Your task to perform on an android device: Google the capital of Colombia Image 0: 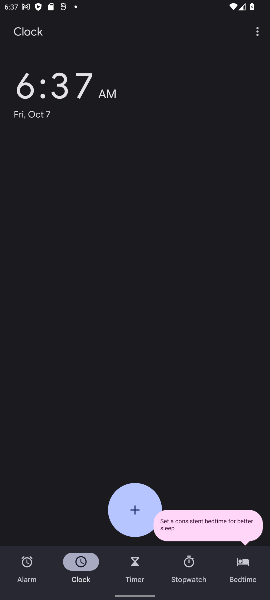
Step 0: press home button
Your task to perform on an android device: Google the capital of Colombia Image 1: 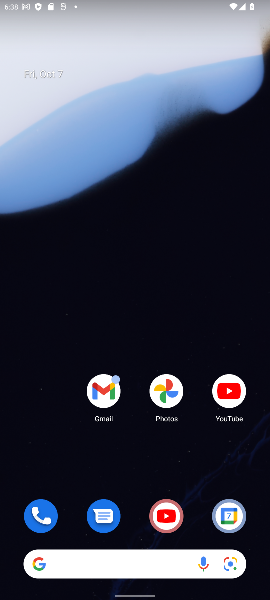
Step 1: click (124, 571)
Your task to perform on an android device: Google the capital of Colombia Image 2: 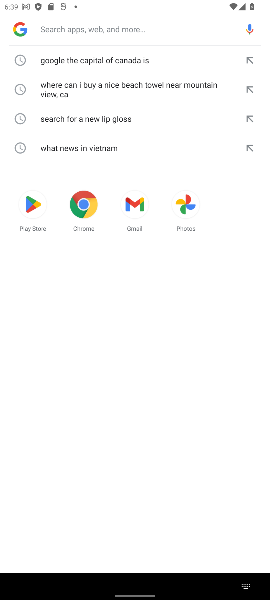
Step 2: type "Google the capital of Colombia"
Your task to perform on an android device: Google the capital of Colombia Image 3: 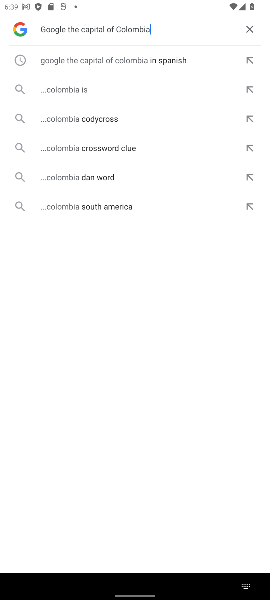
Step 3: click (73, 58)
Your task to perform on an android device: Google the capital of Colombia Image 4: 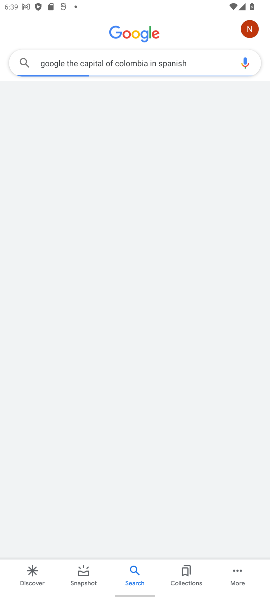
Step 4: task complete